Your task to perform on an android device: Search for vegetarian restaurants on Maps Image 0: 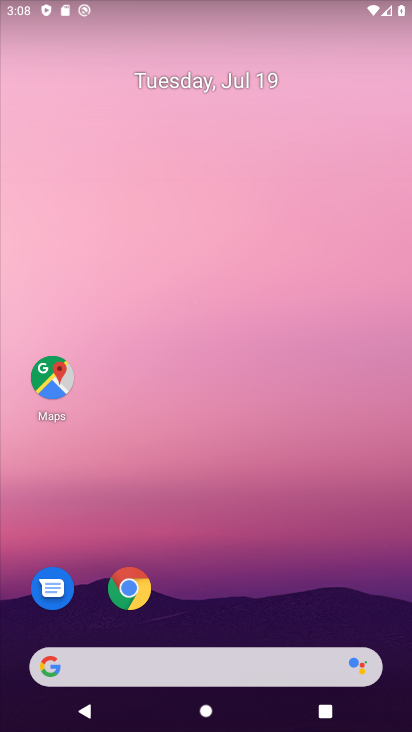
Step 0: click (50, 394)
Your task to perform on an android device: Search for vegetarian restaurants on Maps Image 1: 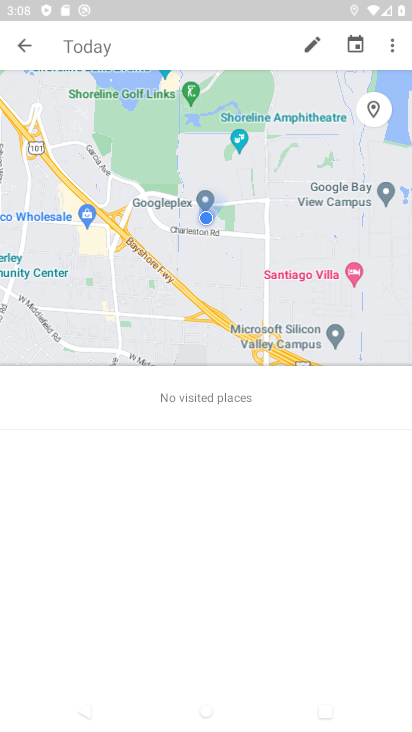
Step 1: click (18, 47)
Your task to perform on an android device: Search for vegetarian restaurants on Maps Image 2: 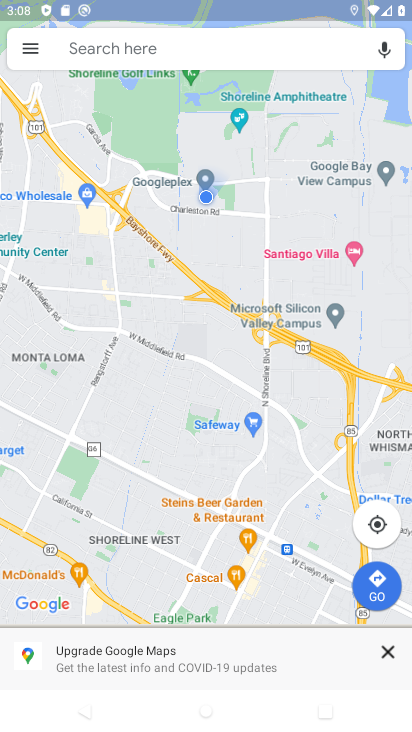
Step 2: click (190, 56)
Your task to perform on an android device: Search for vegetarian restaurants on Maps Image 3: 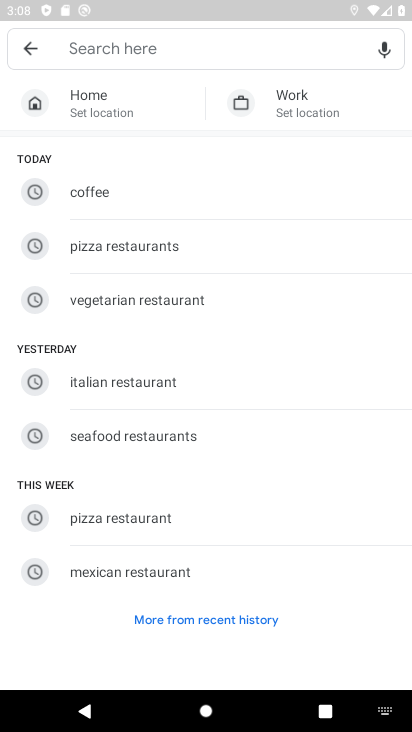
Step 3: click (183, 305)
Your task to perform on an android device: Search for vegetarian restaurants on Maps Image 4: 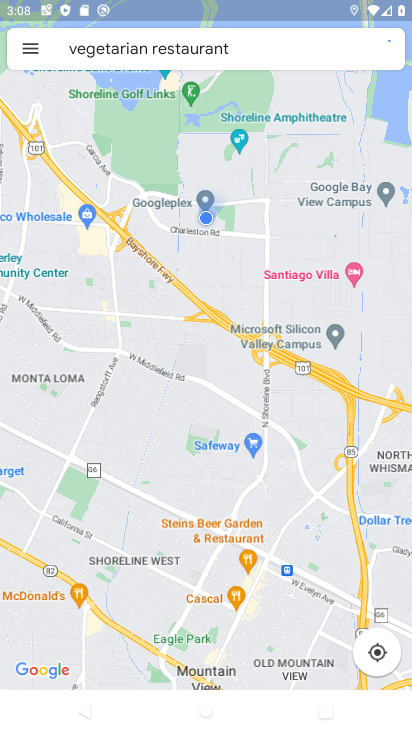
Step 4: task complete